Your task to perform on an android device: Open calendar and show me the second week of next month Image 0: 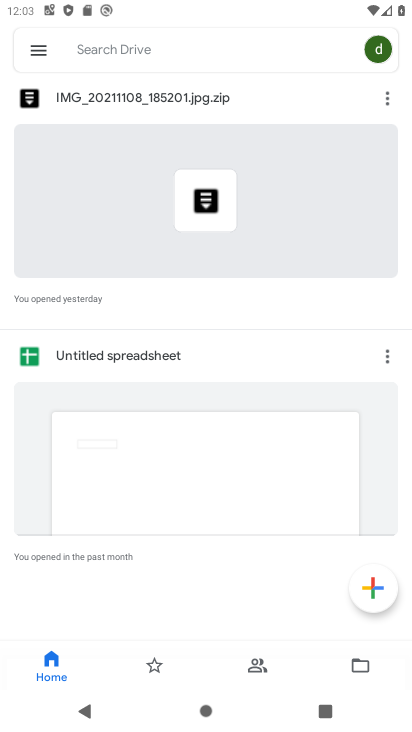
Step 0: press home button
Your task to perform on an android device: Open calendar and show me the second week of next month Image 1: 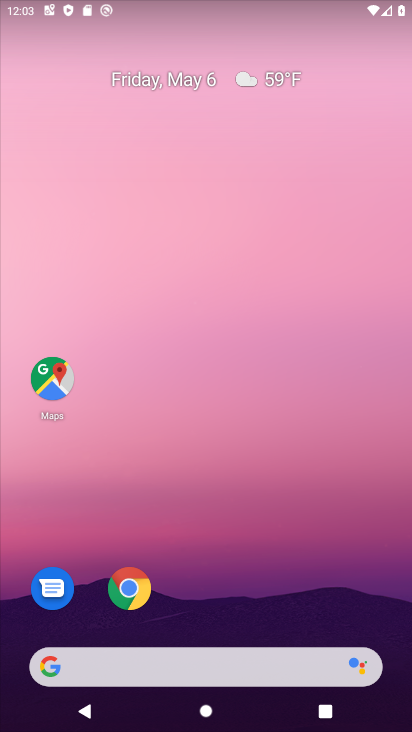
Step 1: drag from (265, 520) to (286, 25)
Your task to perform on an android device: Open calendar and show me the second week of next month Image 2: 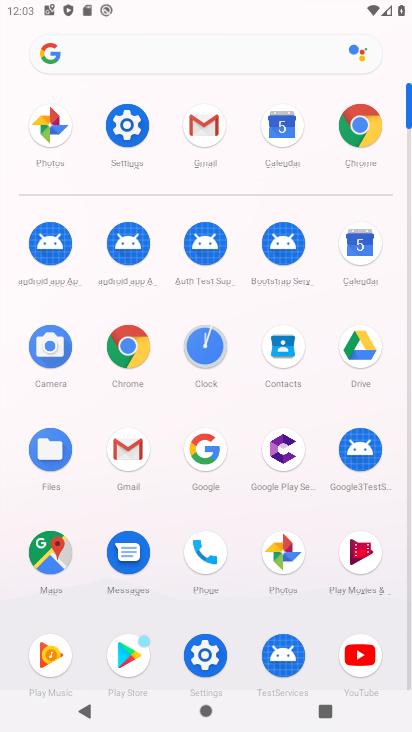
Step 2: click (276, 116)
Your task to perform on an android device: Open calendar and show me the second week of next month Image 3: 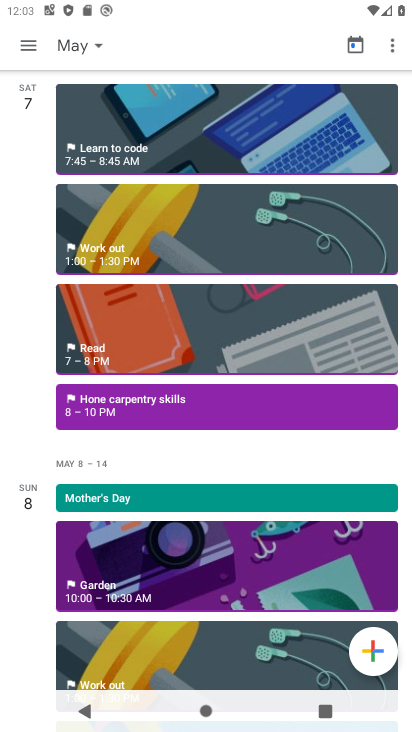
Step 3: click (30, 44)
Your task to perform on an android device: Open calendar and show me the second week of next month Image 4: 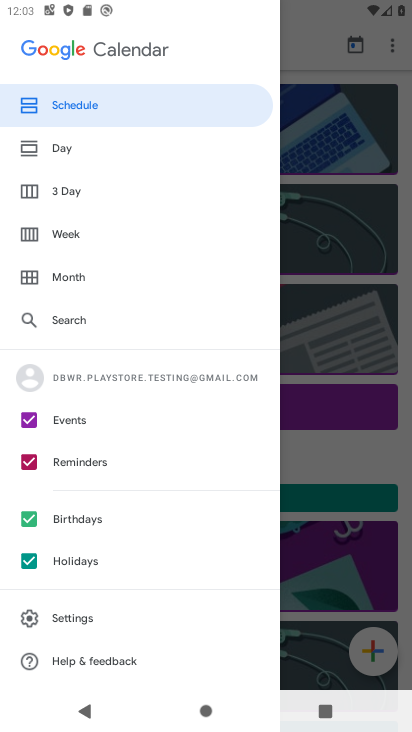
Step 4: click (55, 234)
Your task to perform on an android device: Open calendar and show me the second week of next month Image 5: 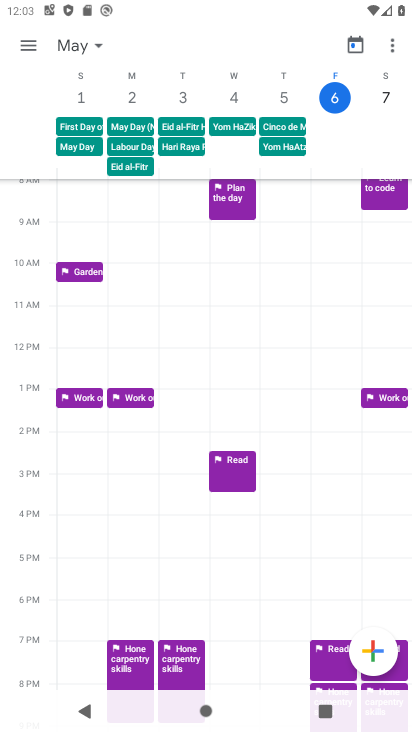
Step 5: task complete